Your task to perform on an android device: find which apps use the phone's location Image 0: 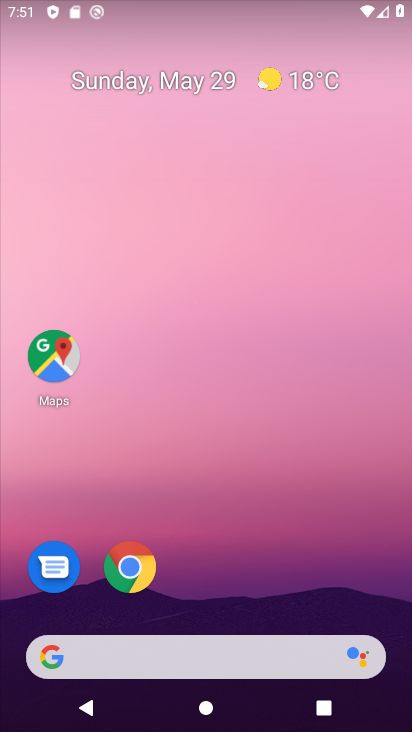
Step 0: drag from (397, 618) to (346, 220)
Your task to perform on an android device: find which apps use the phone's location Image 1: 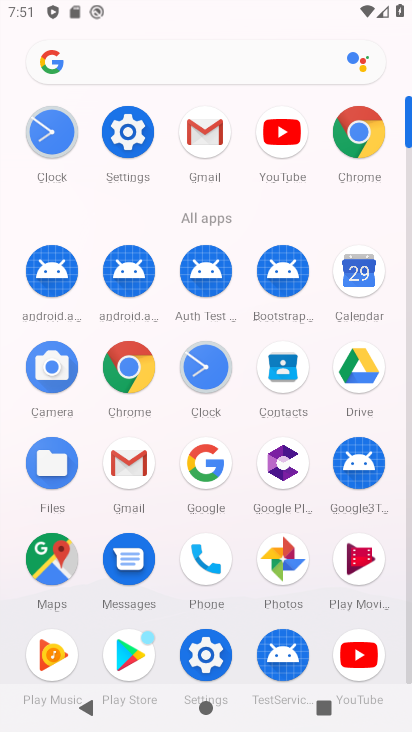
Step 1: click (212, 657)
Your task to perform on an android device: find which apps use the phone's location Image 2: 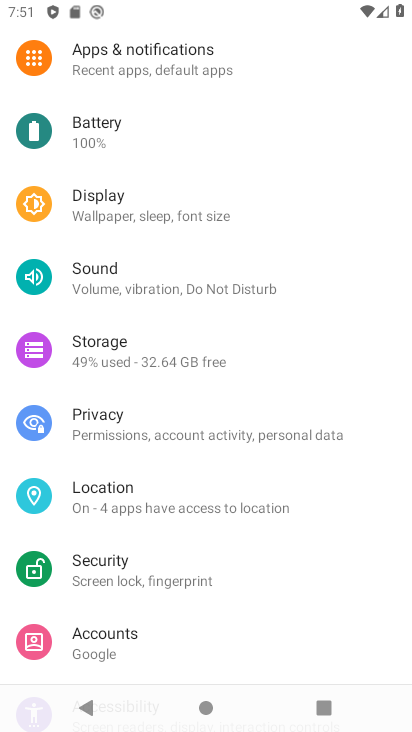
Step 2: click (93, 488)
Your task to perform on an android device: find which apps use the phone's location Image 3: 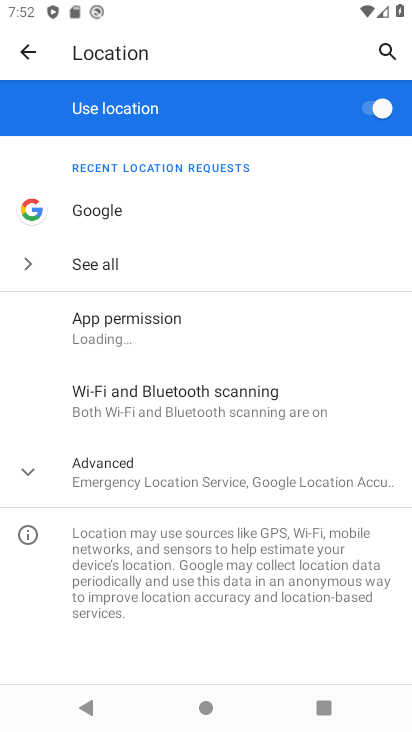
Step 3: click (25, 469)
Your task to perform on an android device: find which apps use the phone's location Image 4: 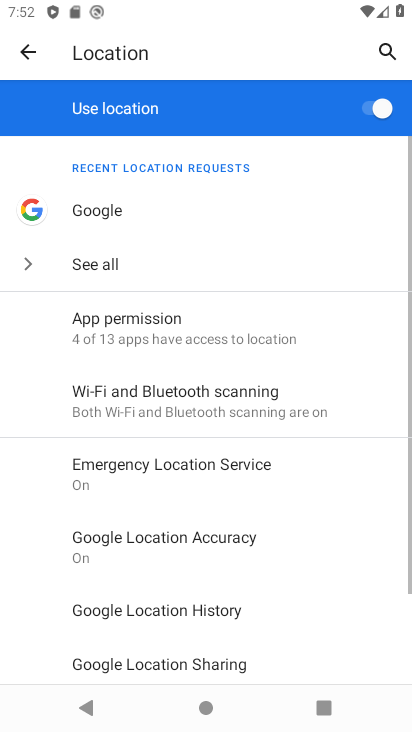
Step 4: click (66, 318)
Your task to perform on an android device: find which apps use the phone's location Image 5: 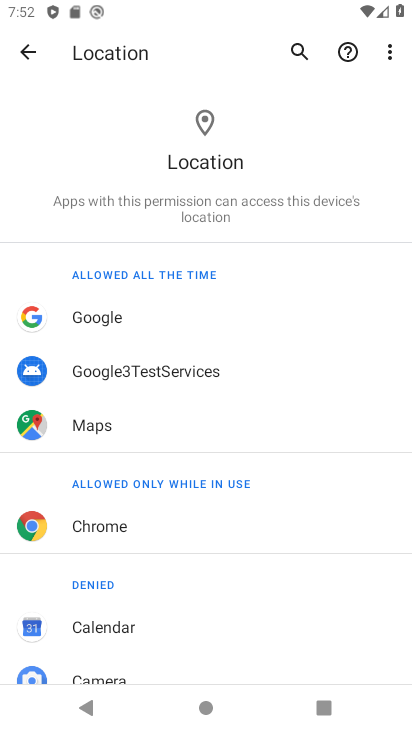
Step 5: task complete